Your task to perform on an android device: delete location history Image 0: 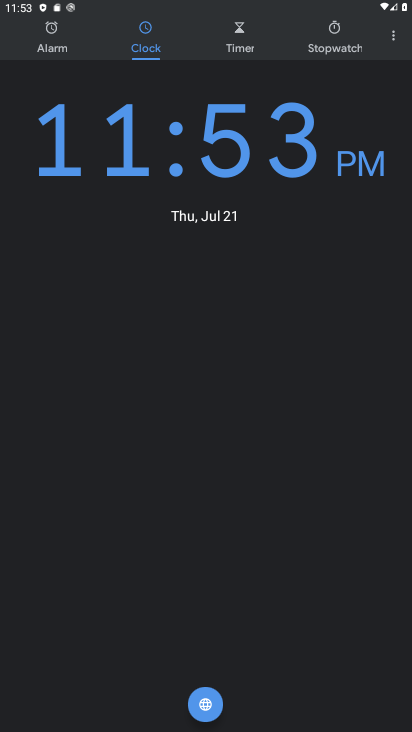
Step 0: task complete